Your task to perform on an android device: find which apps use the phone's location Image 0: 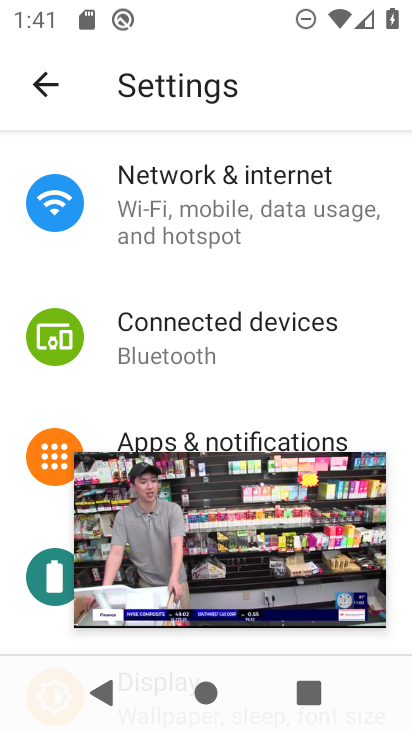
Step 0: drag from (184, 520) to (207, 726)
Your task to perform on an android device: find which apps use the phone's location Image 1: 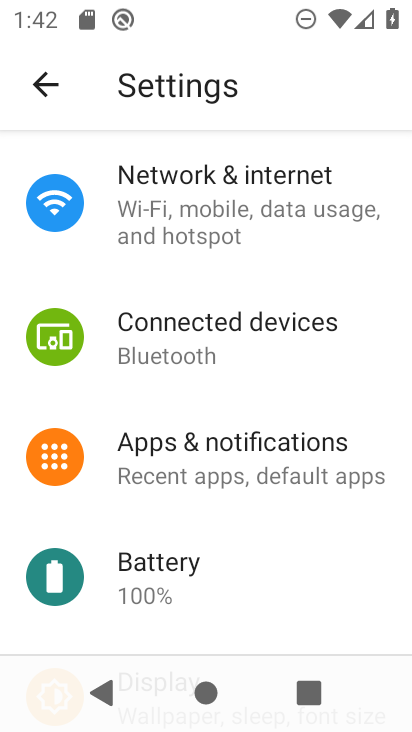
Step 1: drag from (280, 615) to (407, 192)
Your task to perform on an android device: find which apps use the phone's location Image 2: 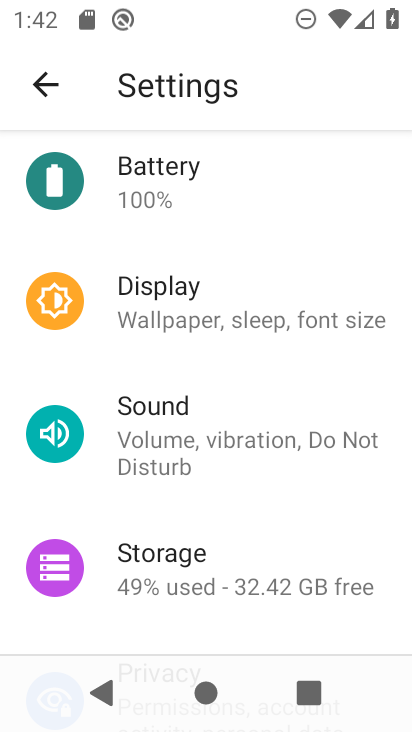
Step 2: drag from (157, 612) to (307, 24)
Your task to perform on an android device: find which apps use the phone's location Image 3: 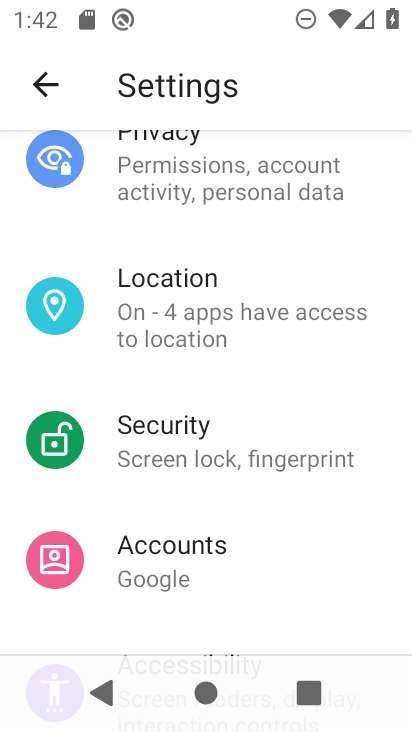
Step 3: click (156, 313)
Your task to perform on an android device: find which apps use the phone's location Image 4: 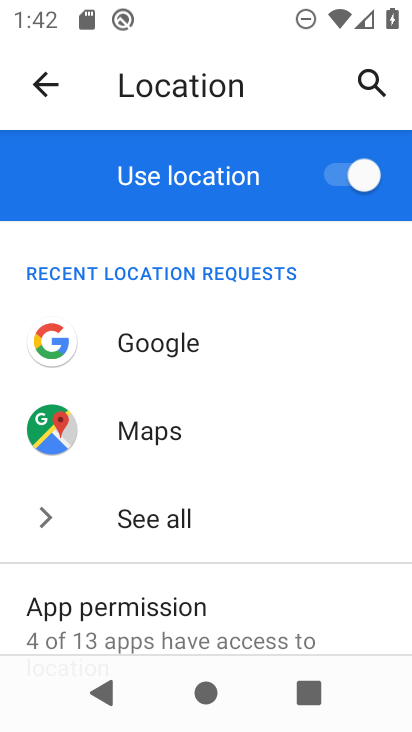
Step 4: click (121, 504)
Your task to perform on an android device: find which apps use the phone's location Image 5: 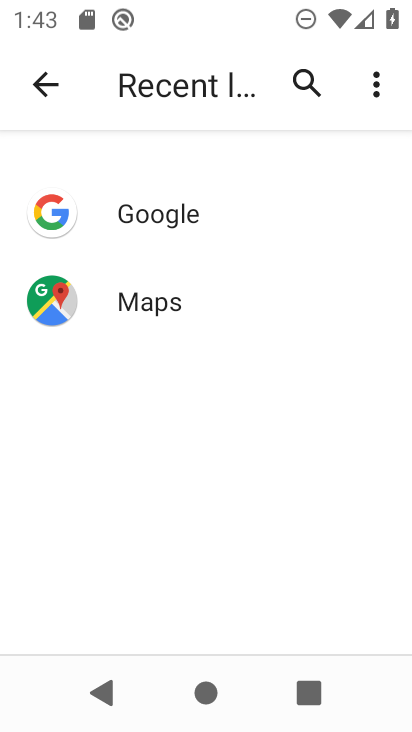
Step 5: task complete